Your task to perform on an android device: change text size in settings app Image 0: 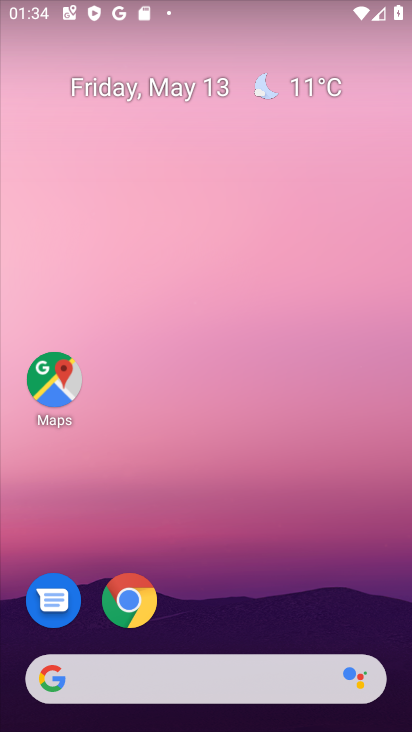
Step 0: drag from (218, 577) to (297, 144)
Your task to perform on an android device: change text size in settings app Image 1: 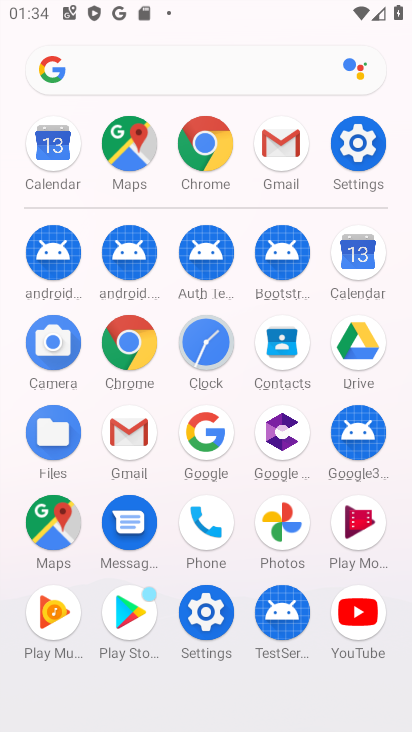
Step 1: click (365, 160)
Your task to perform on an android device: change text size in settings app Image 2: 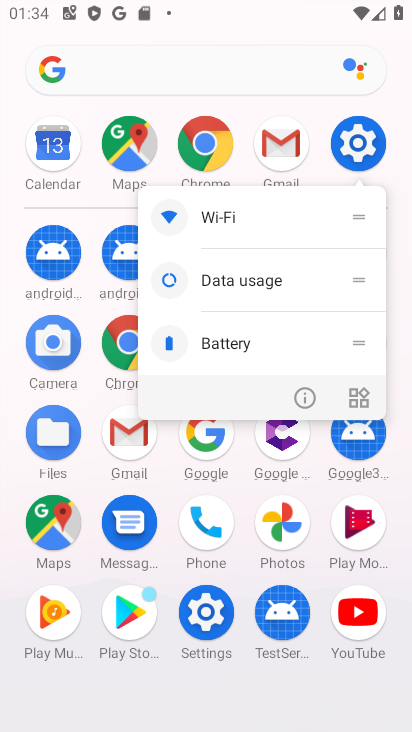
Step 2: click (315, 388)
Your task to perform on an android device: change text size in settings app Image 3: 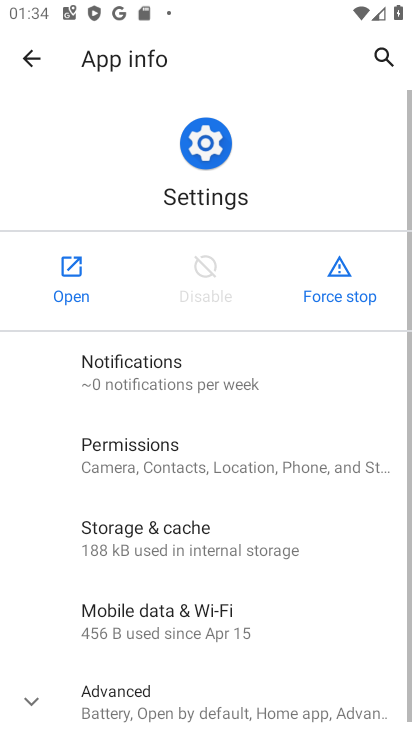
Step 3: click (97, 279)
Your task to perform on an android device: change text size in settings app Image 4: 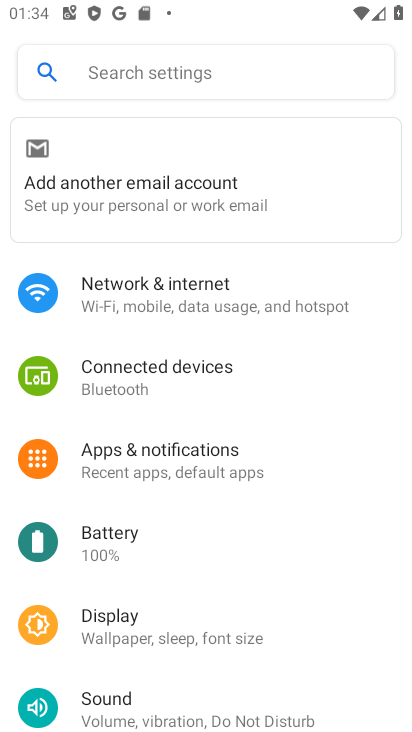
Step 4: click (127, 630)
Your task to perform on an android device: change text size in settings app Image 5: 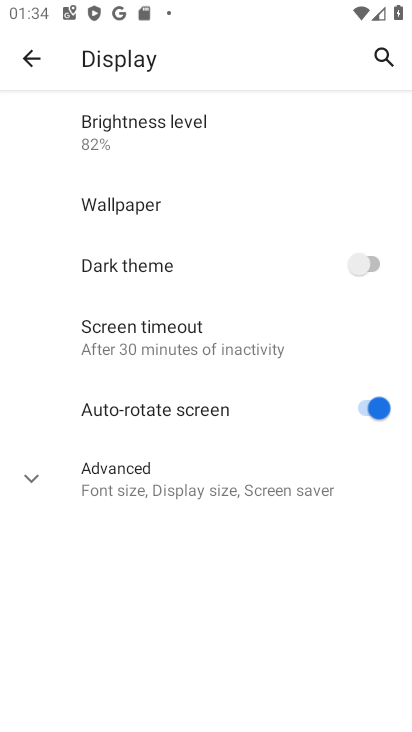
Step 5: click (154, 476)
Your task to perform on an android device: change text size in settings app Image 6: 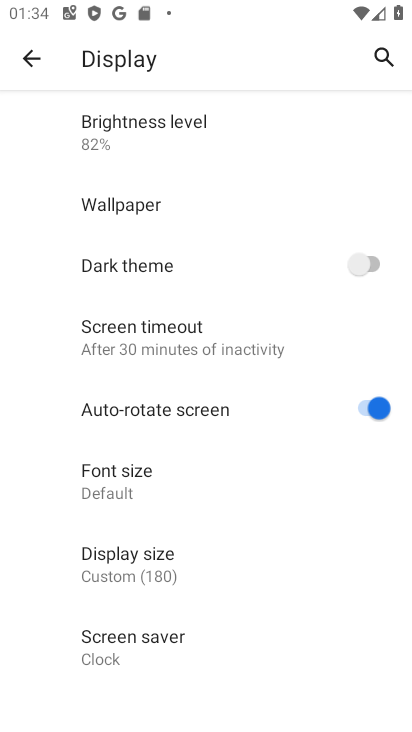
Step 6: click (156, 475)
Your task to perform on an android device: change text size in settings app Image 7: 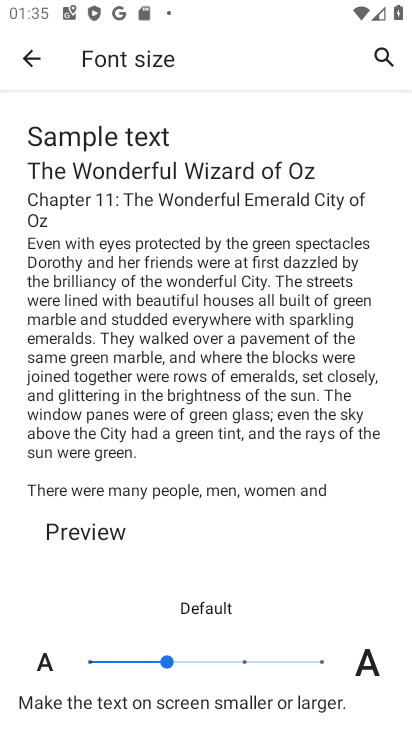
Step 7: click (89, 657)
Your task to perform on an android device: change text size in settings app Image 8: 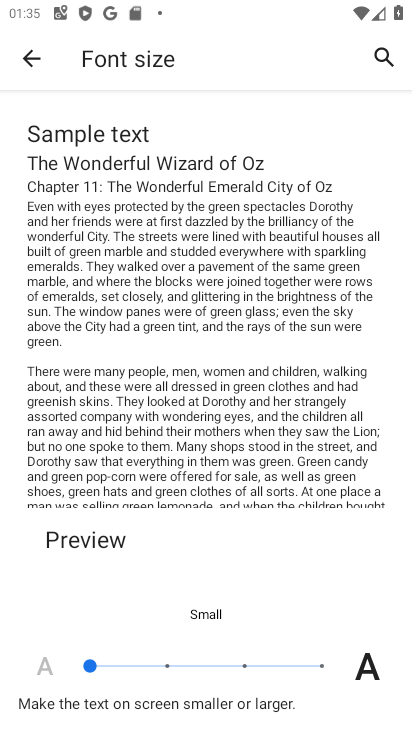
Step 8: task complete